Your task to perform on an android device: Open Chrome and go to settings Image 0: 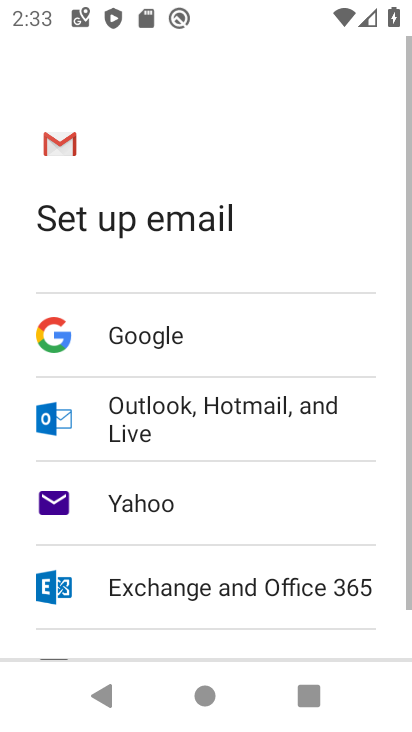
Step 0: press home button
Your task to perform on an android device: Open Chrome and go to settings Image 1: 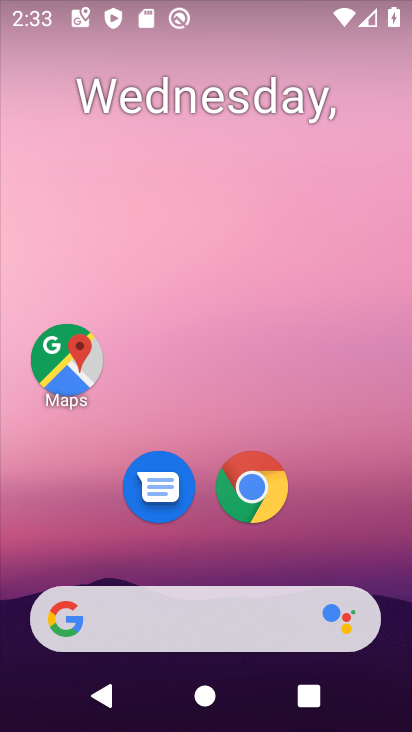
Step 1: click (250, 495)
Your task to perform on an android device: Open Chrome and go to settings Image 2: 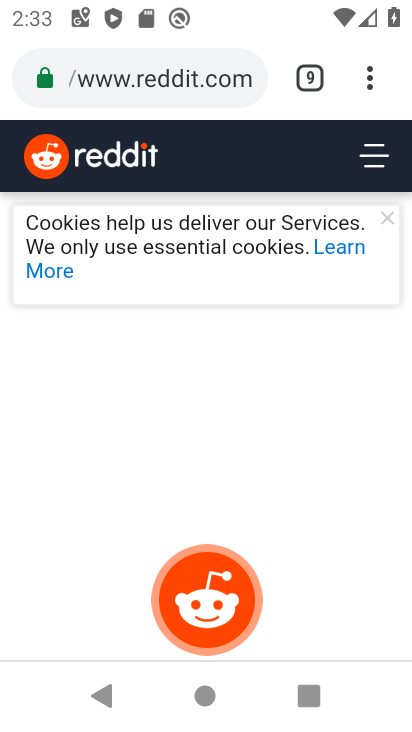
Step 2: click (365, 66)
Your task to perform on an android device: Open Chrome and go to settings Image 3: 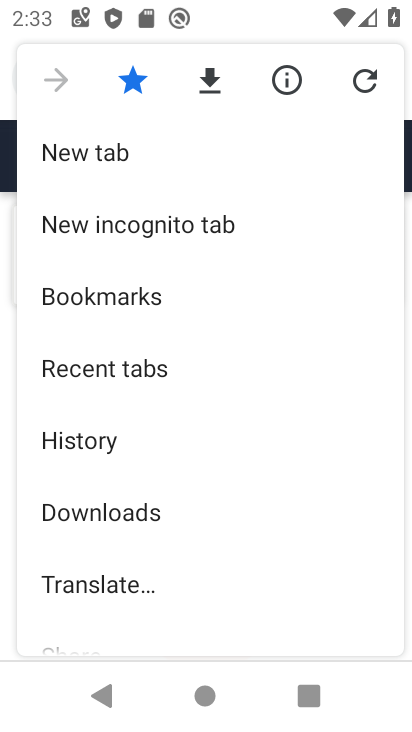
Step 3: drag from (271, 511) to (229, 202)
Your task to perform on an android device: Open Chrome and go to settings Image 4: 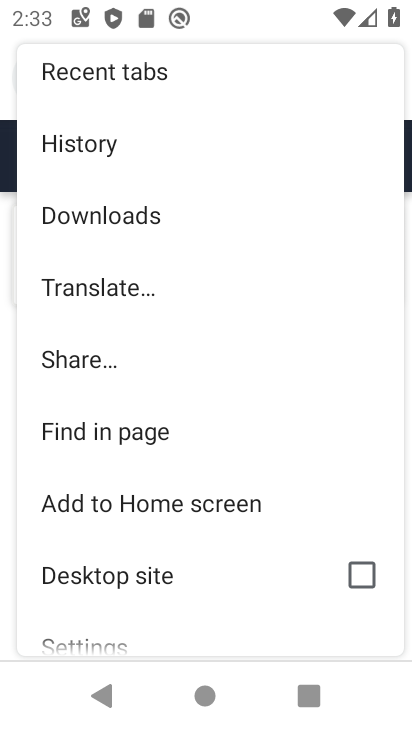
Step 4: drag from (220, 558) to (186, 226)
Your task to perform on an android device: Open Chrome and go to settings Image 5: 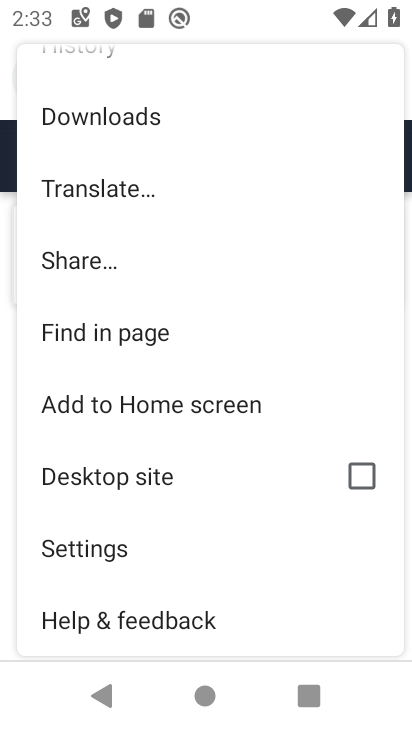
Step 5: click (110, 545)
Your task to perform on an android device: Open Chrome and go to settings Image 6: 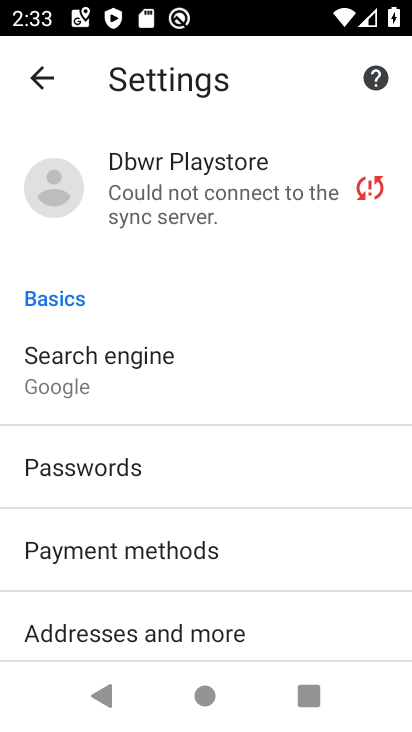
Step 6: task complete